Your task to perform on an android device: Show me popular games on the Play Store Image 0: 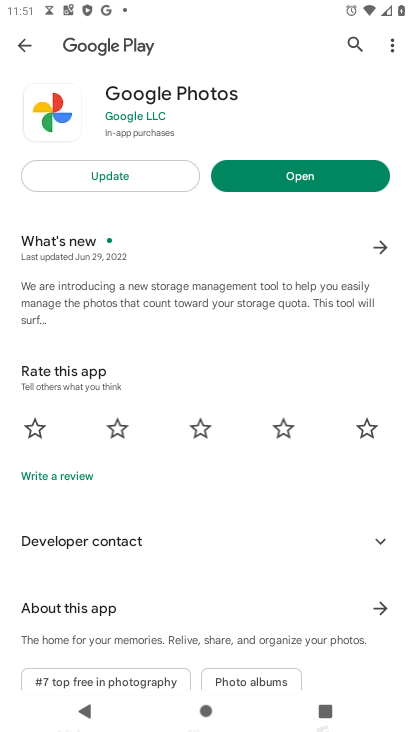
Step 0: press home button
Your task to perform on an android device: Show me popular games on the Play Store Image 1: 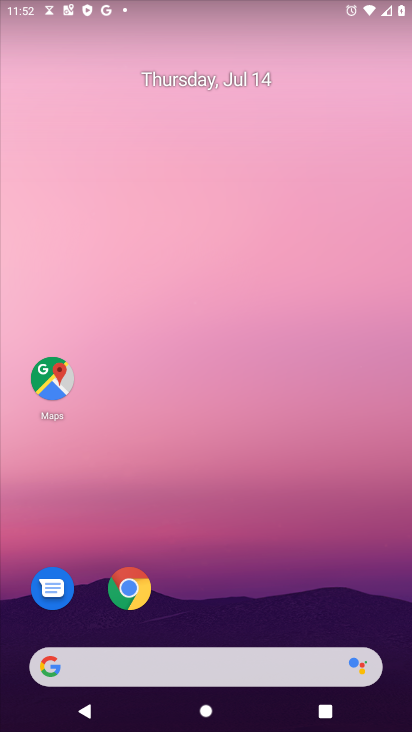
Step 1: drag from (198, 655) to (201, 87)
Your task to perform on an android device: Show me popular games on the Play Store Image 2: 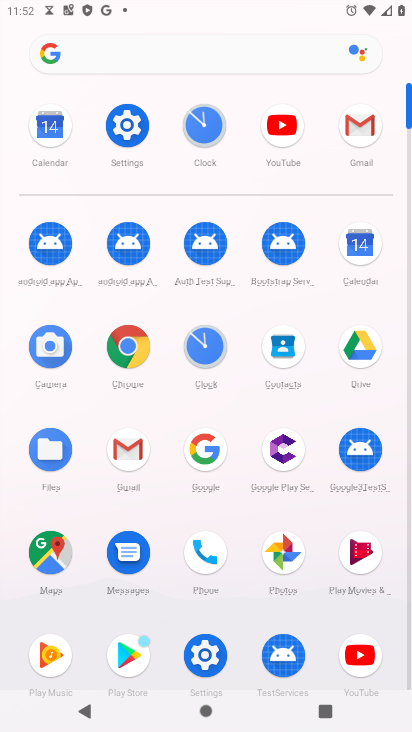
Step 2: click (133, 658)
Your task to perform on an android device: Show me popular games on the Play Store Image 3: 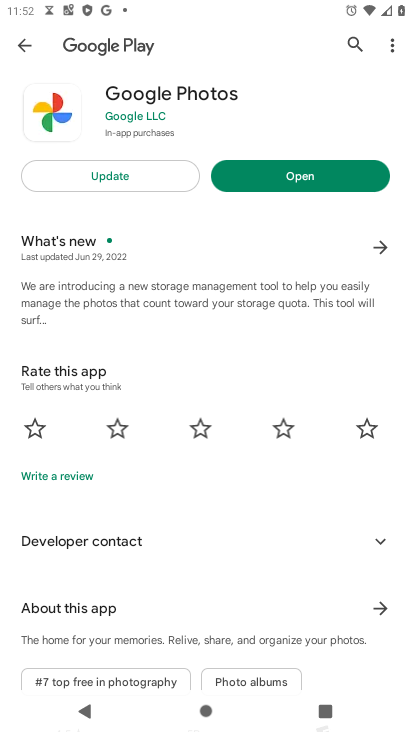
Step 3: click (21, 47)
Your task to perform on an android device: Show me popular games on the Play Store Image 4: 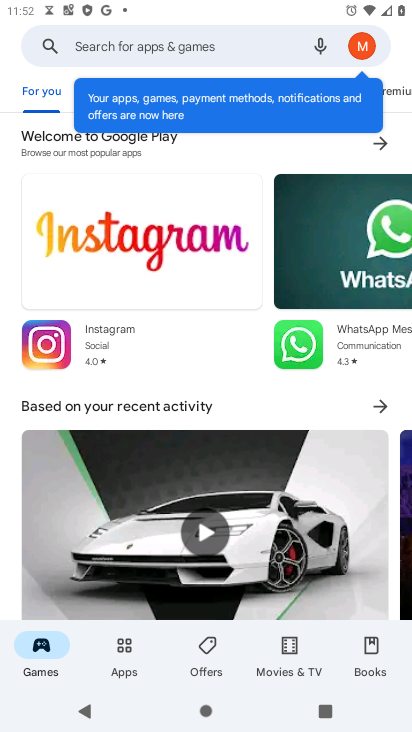
Step 4: click (35, 646)
Your task to perform on an android device: Show me popular games on the Play Store Image 5: 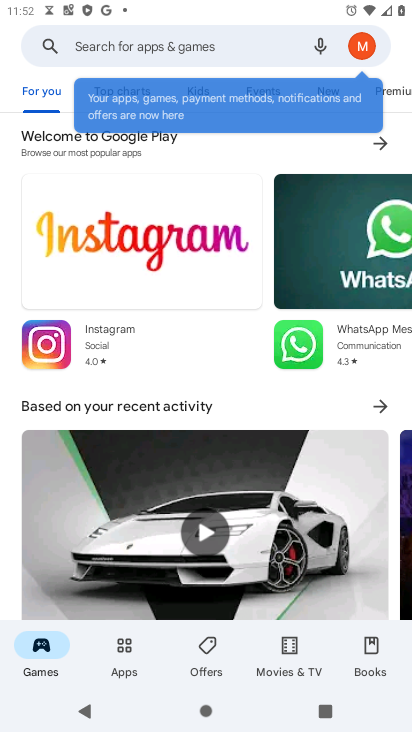
Step 5: drag from (153, 580) to (291, 53)
Your task to perform on an android device: Show me popular games on the Play Store Image 6: 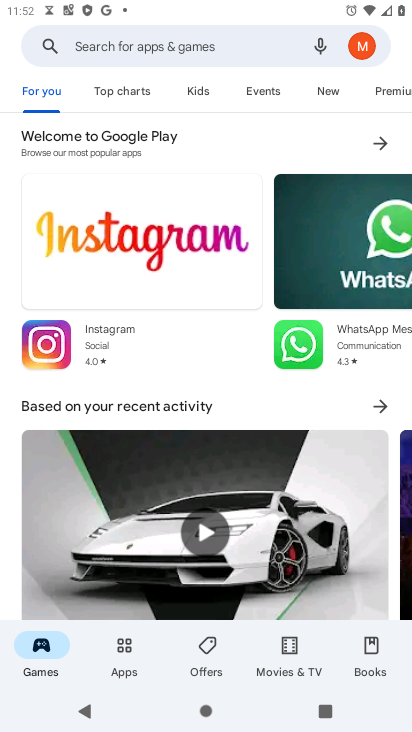
Step 6: drag from (212, 388) to (323, 13)
Your task to perform on an android device: Show me popular games on the Play Store Image 7: 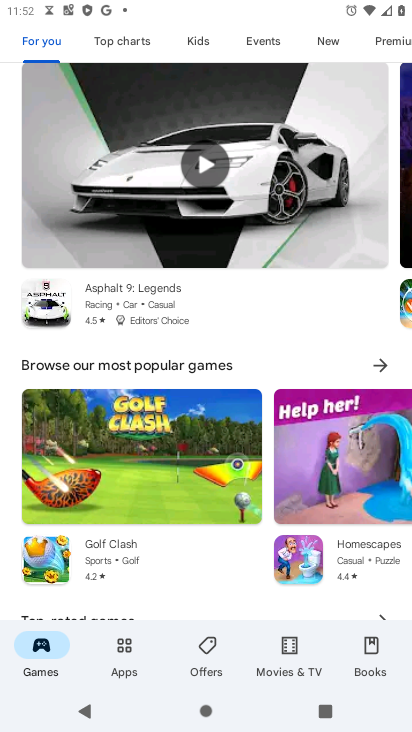
Step 7: click (381, 365)
Your task to perform on an android device: Show me popular games on the Play Store Image 8: 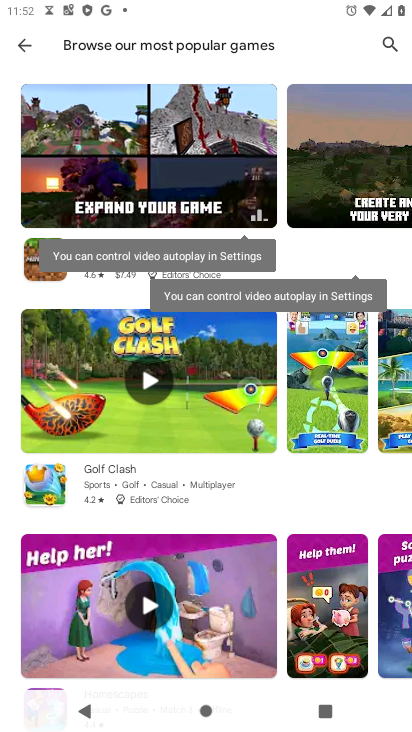
Step 8: task complete